Your task to perform on an android device: Show me the alarms in the clock app Image 0: 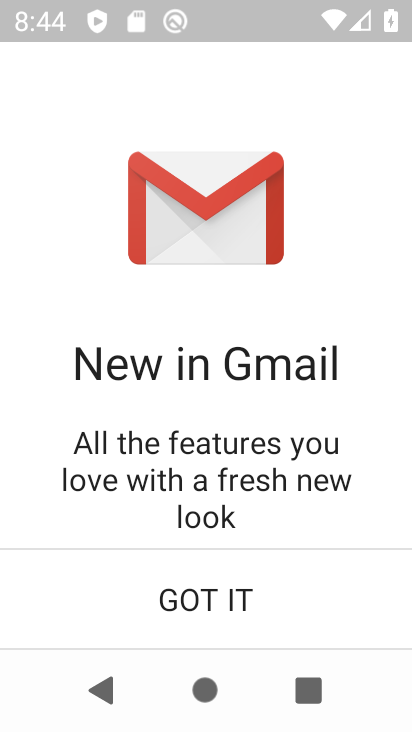
Step 0: press home button
Your task to perform on an android device: Show me the alarms in the clock app Image 1: 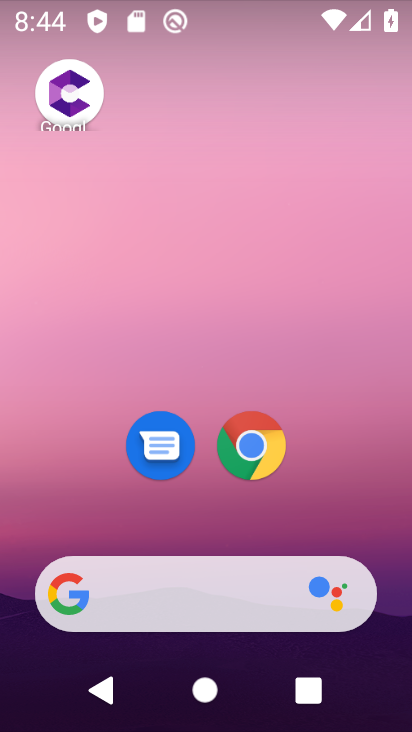
Step 1: drag from (201, 531) to (217, 136)
Your task to perform on an android device: Show me the alarms in the clock app Image 2: 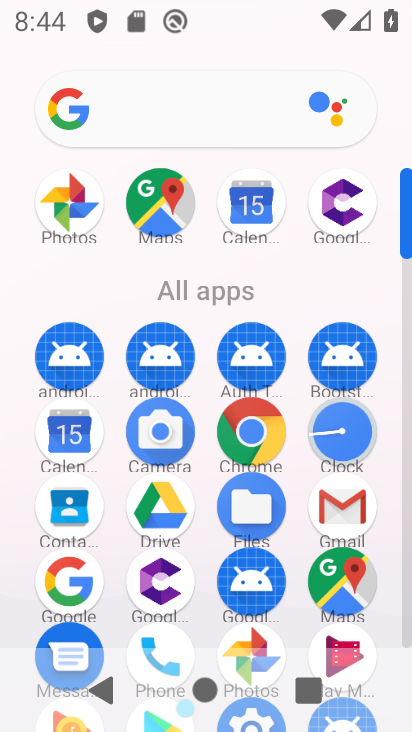
Step 2: click (361, 438)
Your task to perform on an android device: Show me the alarms in the clock app Image 3: 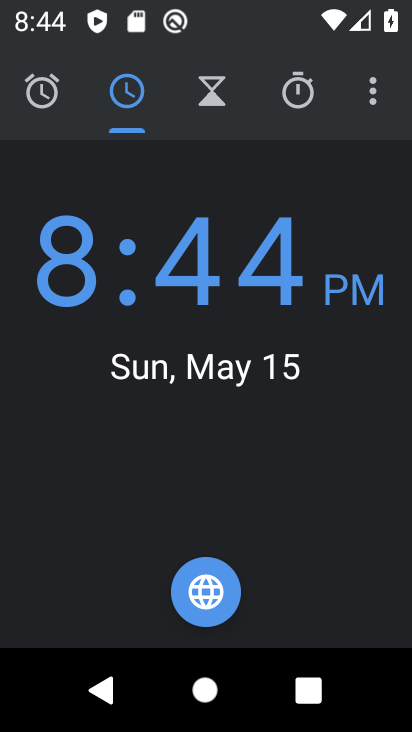
Step 3: click (52, 96)
Your task to perform on an android device: Show me the alarms in the clock app Image 4: 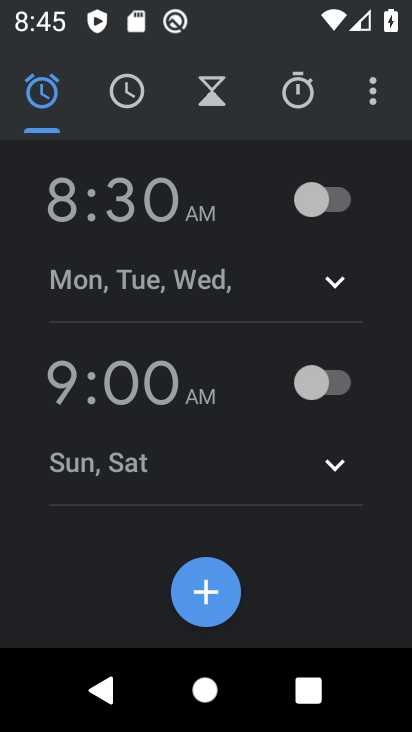
Step 4: task complete